Your task to perform on an android device: Show me recent news Image 0: 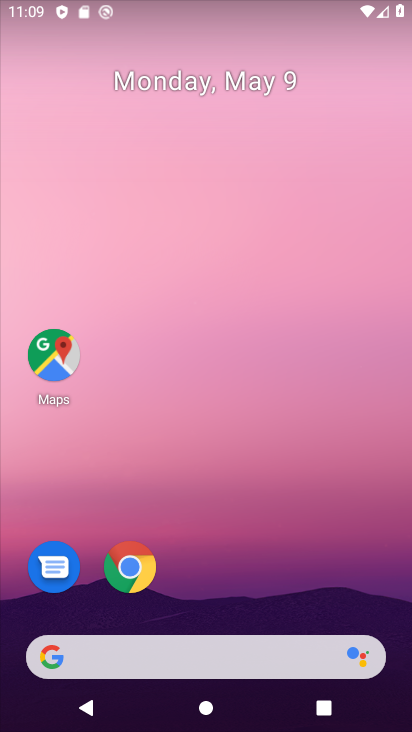
Step 0: drag from (224, 612) to (341, 0)
Your task to perform on an android device: Show me recent news Image 1: 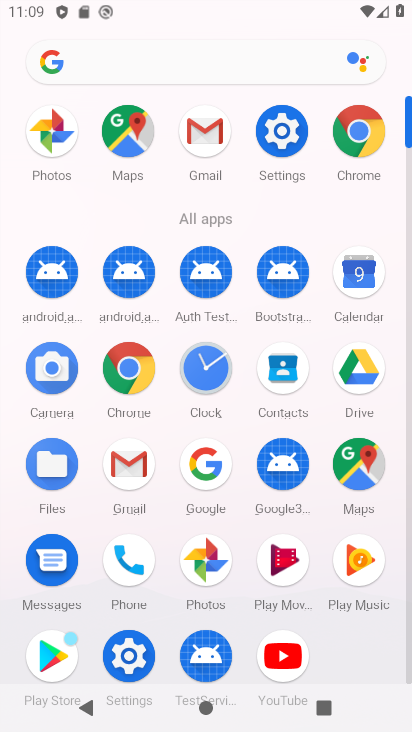
Step 1: click (220, 75)
Your task to perform on an android device: Show me recent news Image 2: 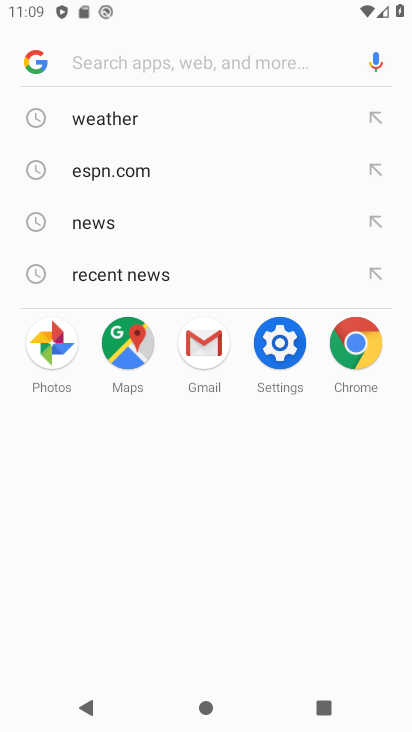
Step 2: click (156, 277)
Your task to perform on an android device: Show me recent news Image 3: 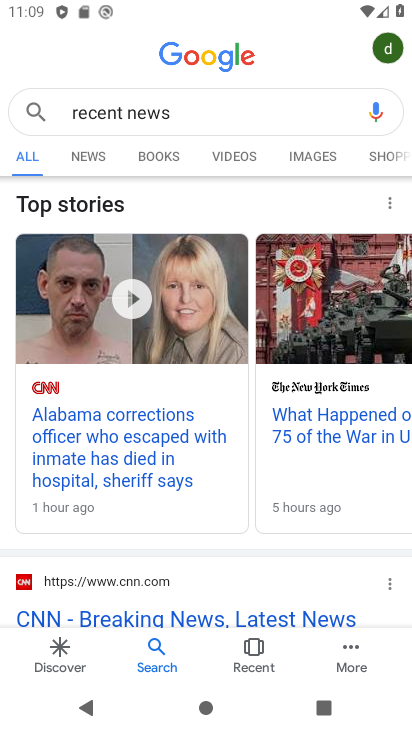
Step 3: task complete